Your task to perform on an android device: See recent photos Image 0: 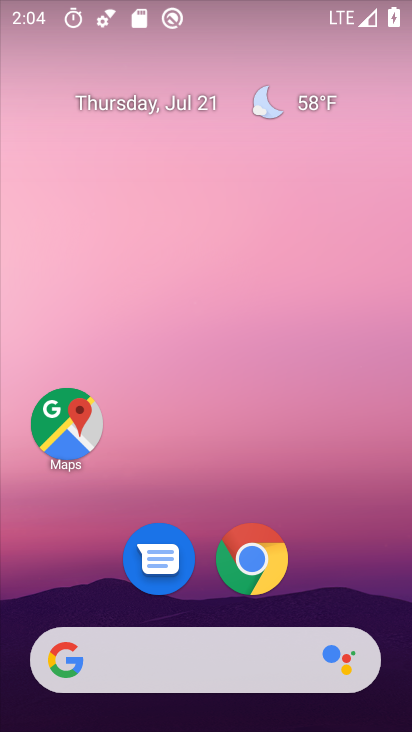
Step 0: drag from (377, 565) to (345, 80)
Your task to perform on an android device: See recent photos Image 1: 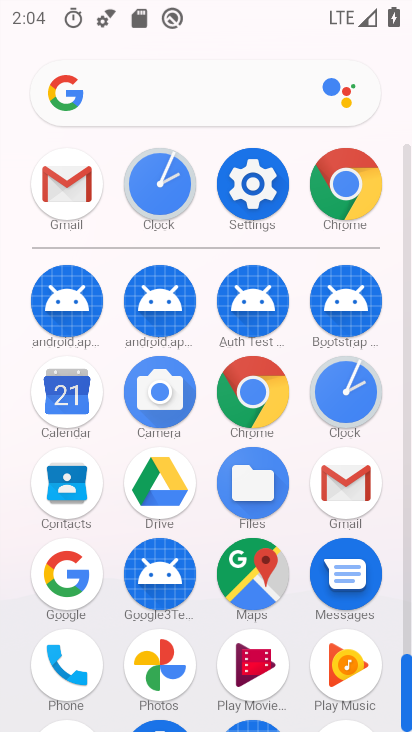
Step 1: click (177, 666)
Your task to perform on an android device: See recent photos Image 2: 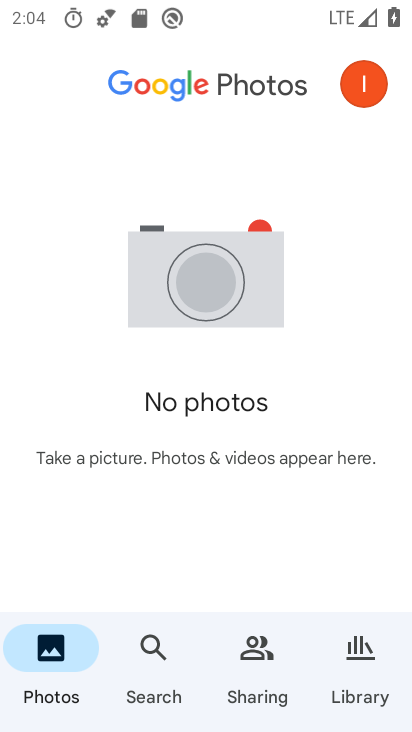
Step 2: task complete